Your task to perform on an android device: set default search engine in the chrome app Image 0: 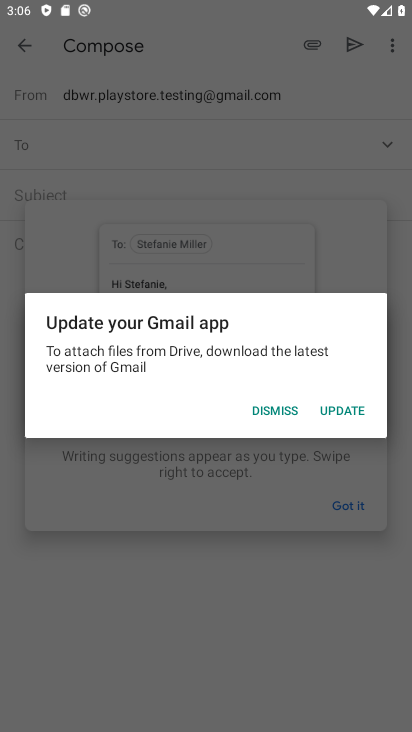
Step 0: press home button
Your task to perform on an android device: set default search engine in the chrome app Image 1: 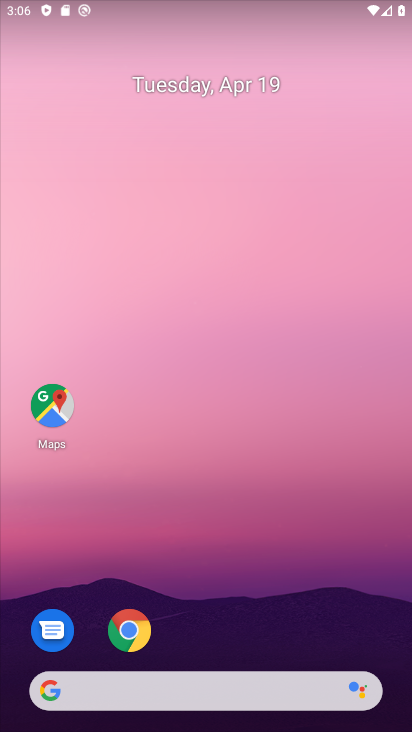
Step 1: drag from (250, 373) to (231, 48)
Your task to perform on an android device: set default search engine in the chrome app Image 2: 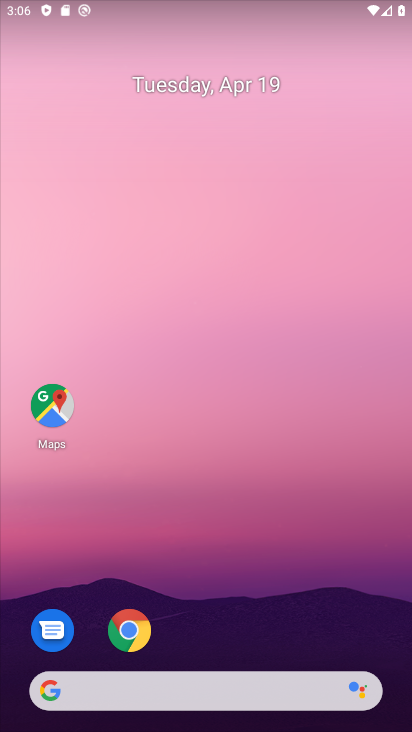
Step 2: drag from (300, 558) to (300, 101)
Your task to perform on an android device: set default search engine in the chrome app Image 3: 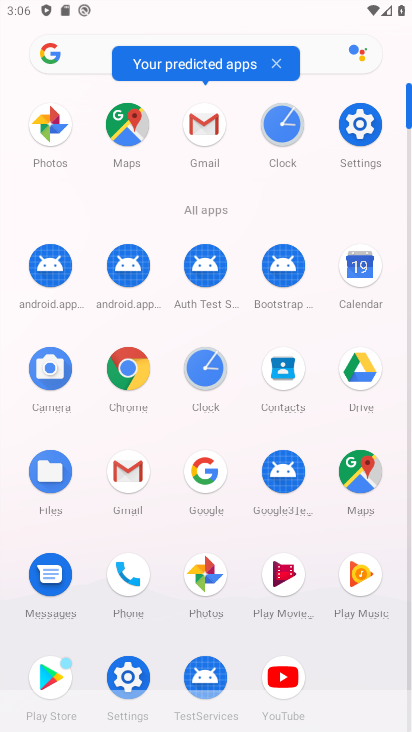
Step 3: click (127, 377)
Your task to perform on an android device: set default search engine in the chrome app Image 4: 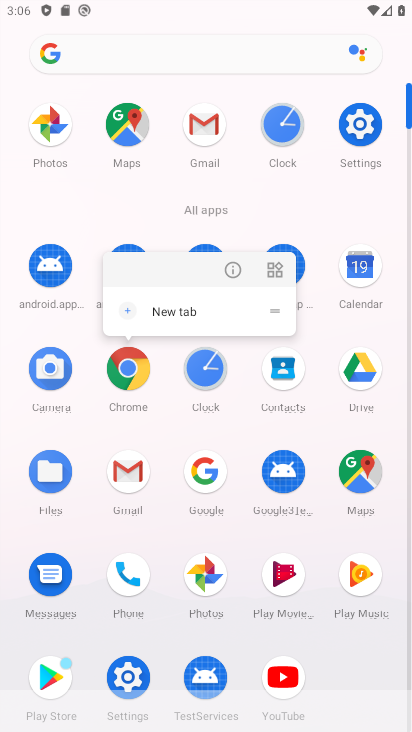
Step 4: click (128, 377)
Your task to perform on an android device: set default search engine in the chrome app Image 5: 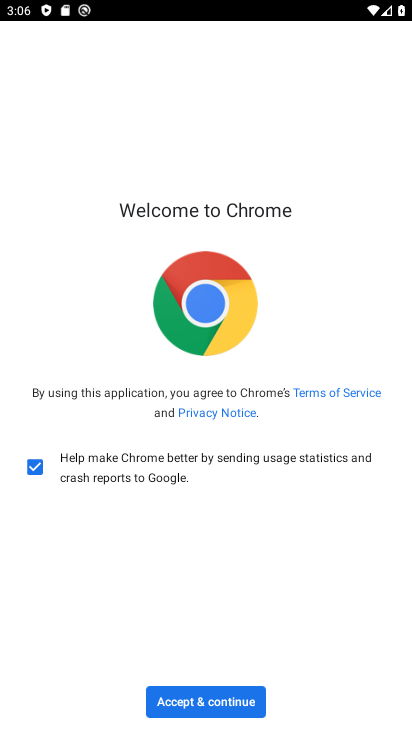
Step 5: click (210, 705)
Your task to perform on an android device: set default search engine in the chrome app Image 6: 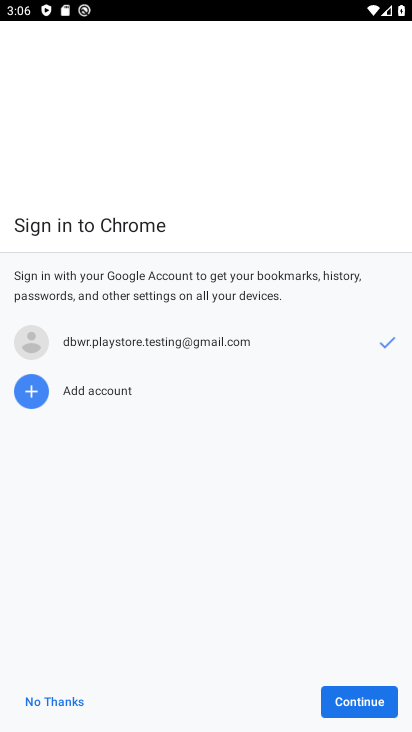
Step 6: click (45, 698)
Your task to perform on an android device: set default search engine in the chrome app Image 7: 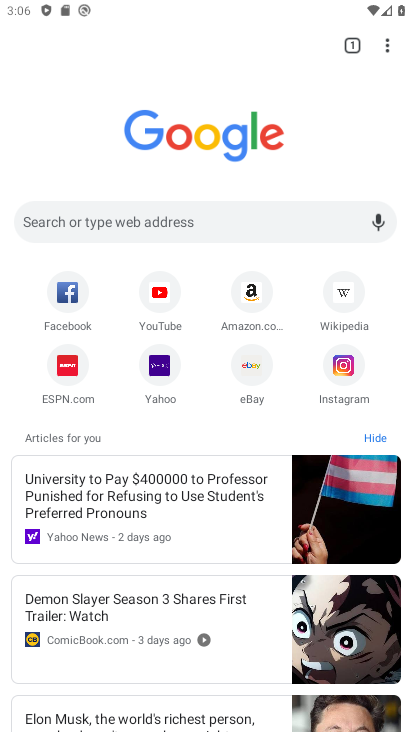
Step 7: click (386, 40)
Your task to perform on an android device: set default search engine in the chrome app Image 8: 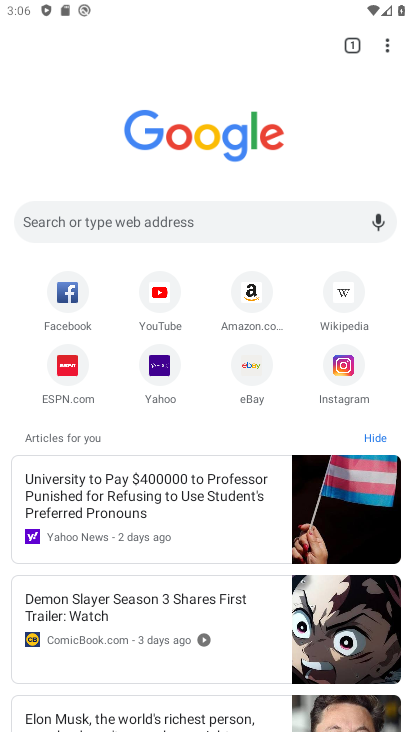
Step 8: drag from (385, 46) to (232, 388)
Your task to perform on an android device: set default search engine in the chrome app Image 9: 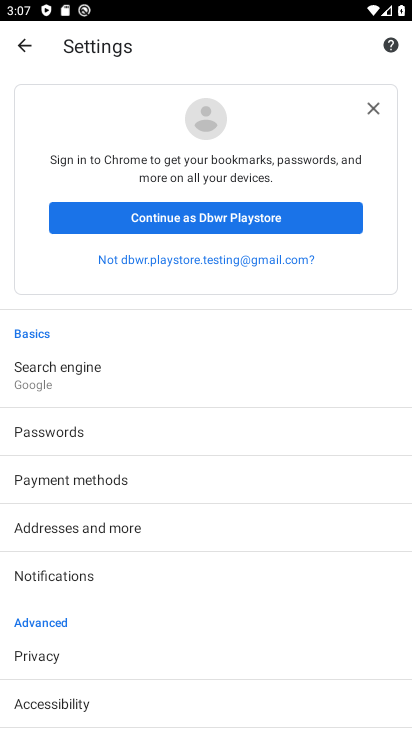
Step 9: click (119, 368)
Your task to perform on an android device: set default search engine in the chrome app Image 10: 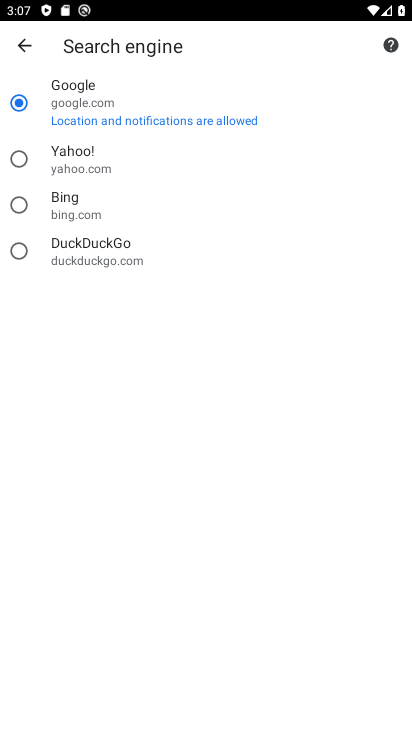
Step 10: task complete